Your task to perform on an android device: change notification settings in the gmail app Image 0: 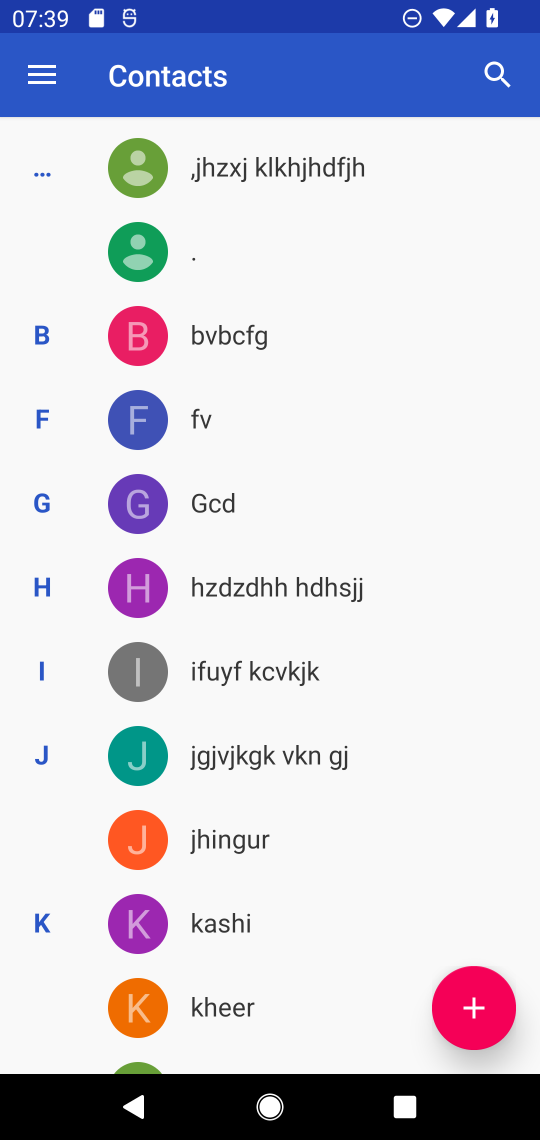
Step 0: press home button
Your task to perform on an android device: change notification settings in the gmail app Image 1: 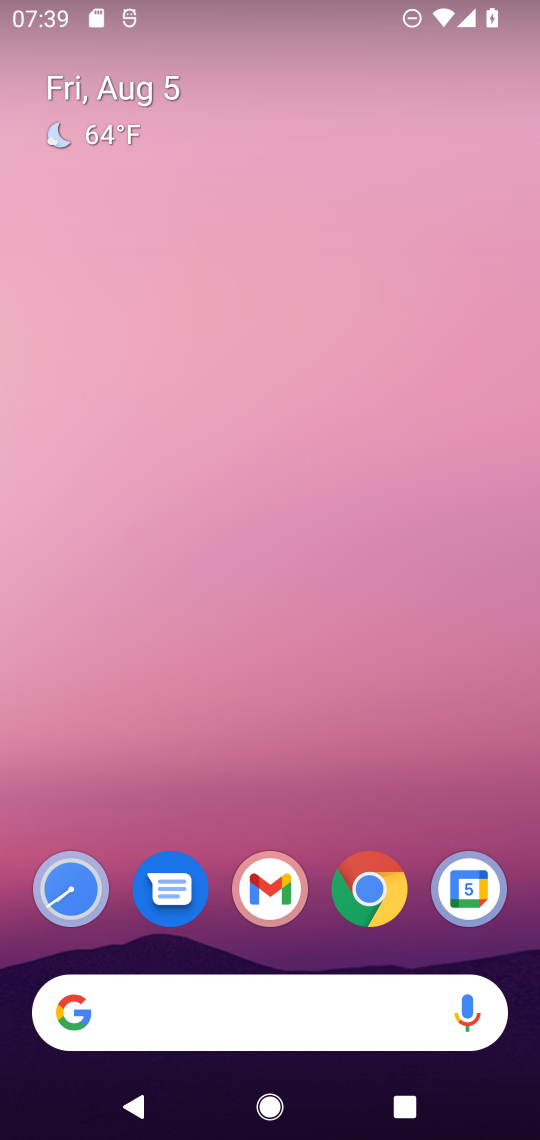
Step 1: click (285, 888)
Your task to perform on an android device: change notification settings in the gmail app Image 2: 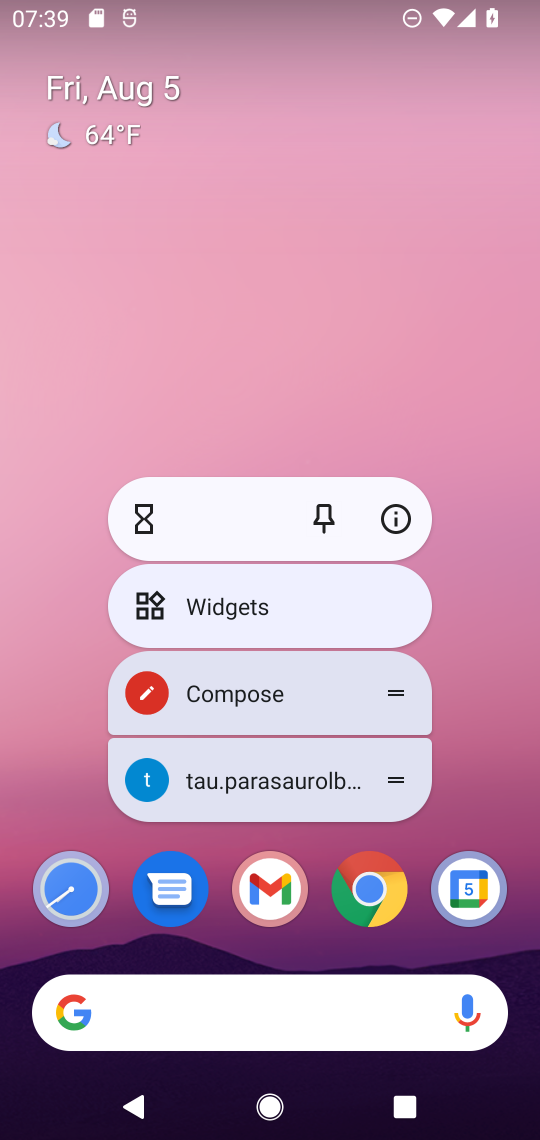
Step 2: click (268, 911)
Your task to perform on an android device: change notification settings in the gmail app Image 3: 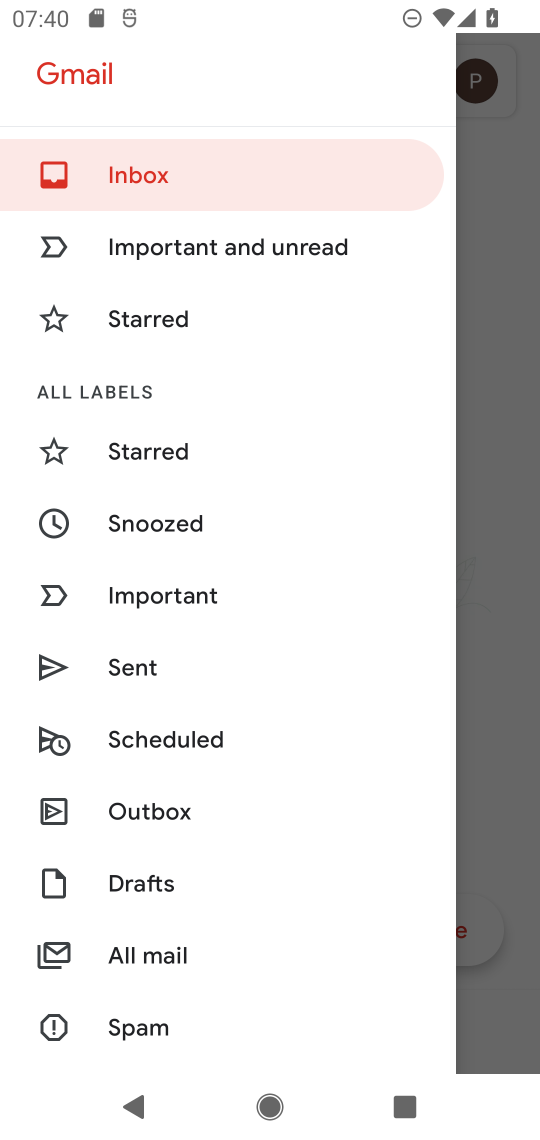
Step 3: drag from (143, 1031) to (202, 441)
Your task to perform on an android device: change notification settings in the gmail app Image 4: 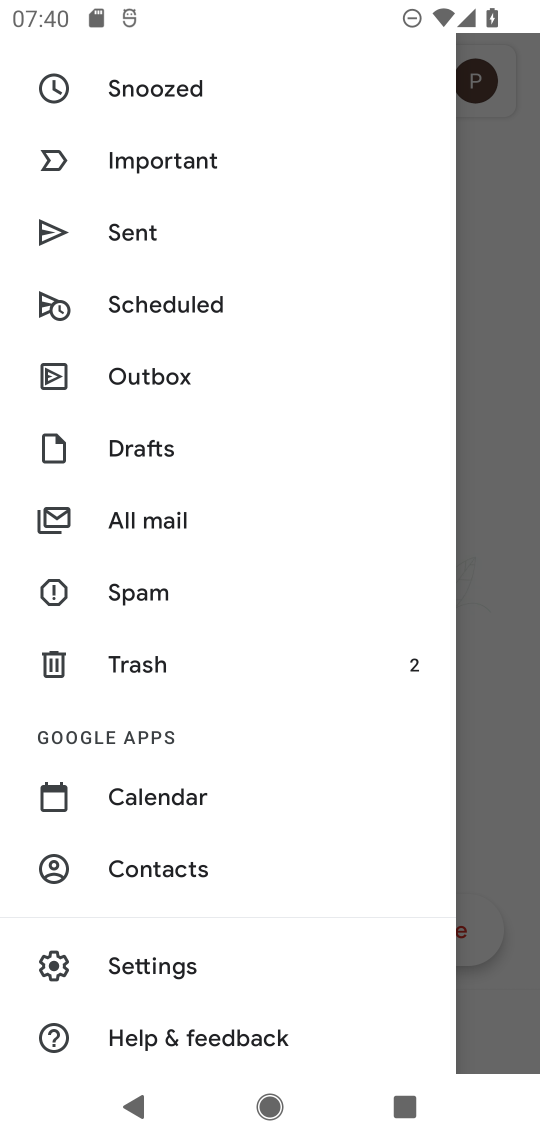
Step 4: click (187, 967)
Your task to perform on an android device: change notification settings in the gmail app Image 5: 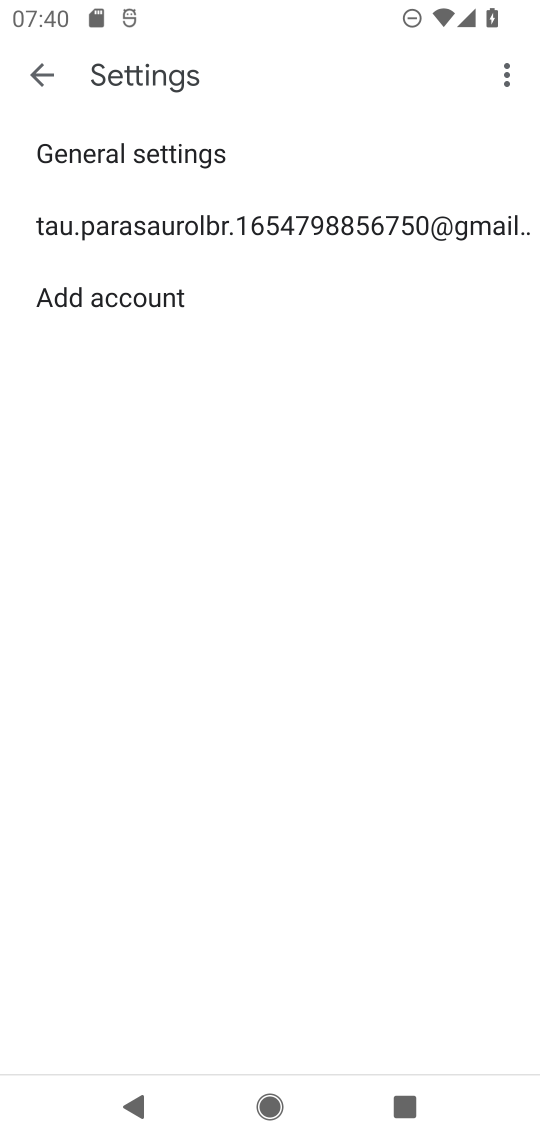
Step 5: click (213, 219)
Your task to perform on an android device: change notification settings in the gmail app Image 6: 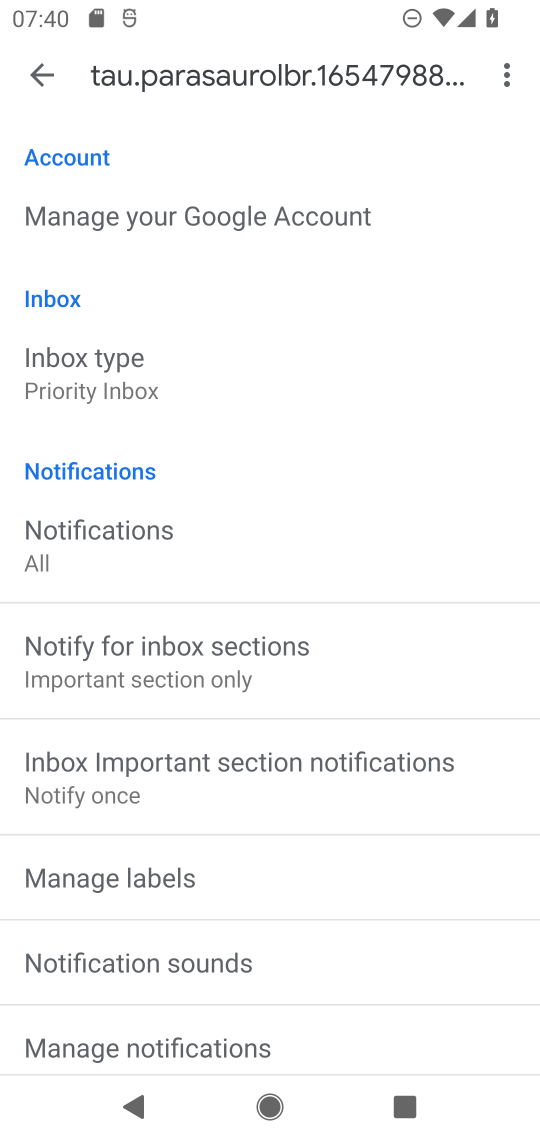
Step 6: click (140, 1042)
Your task to perform on an android device: change notification settings in the gmail app Image 7: 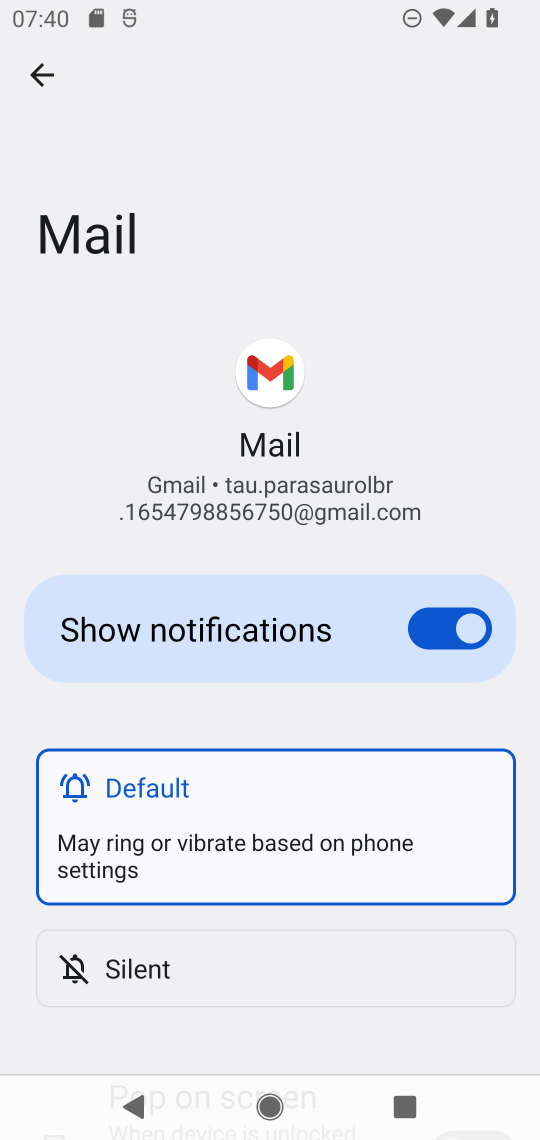
Step 7: click (425, 618)
Your task to perform on an android device: change notification settings in the gmail app Image 8: 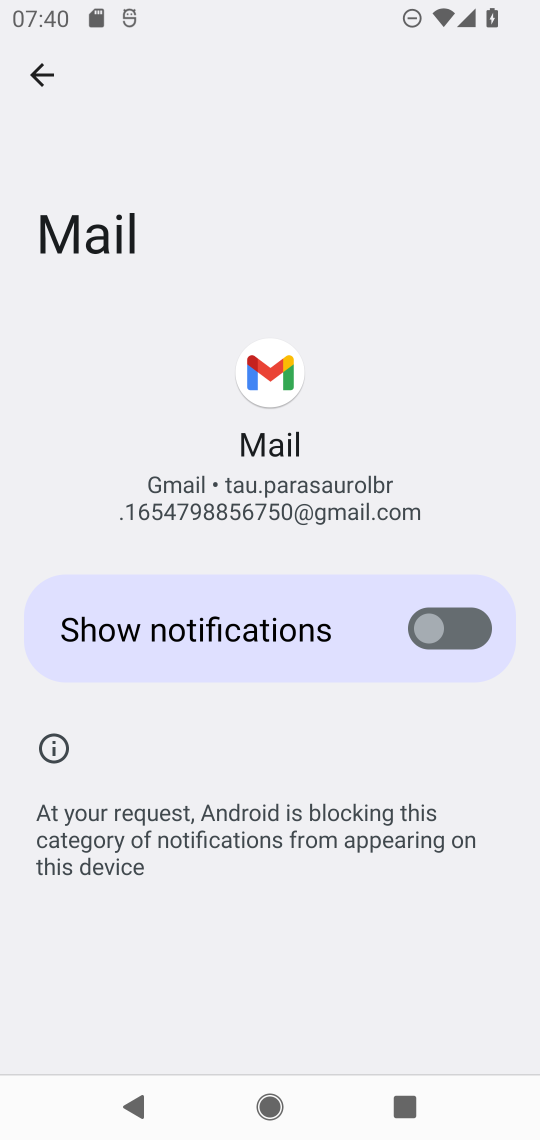
Step 8: task complete